Your task to perform on an android device: toggle location history Image 0: 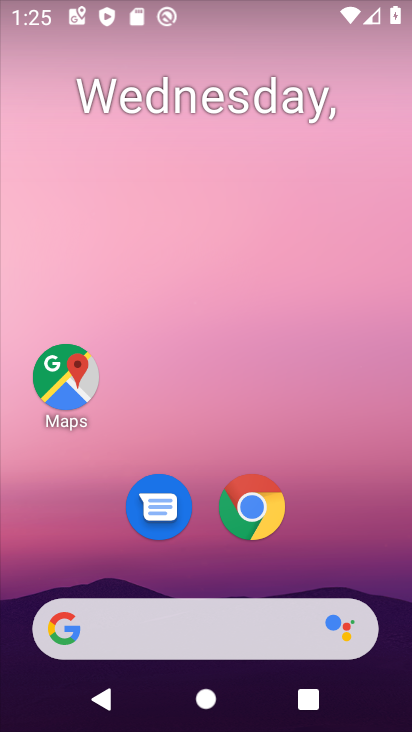
Step 0: drag from (391, 567) to (333, 187)
Your task to perform on an android device: toggle location history Image 1: 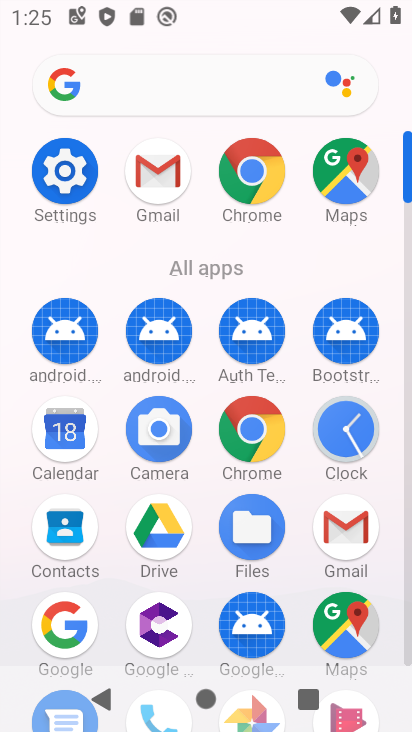
Step 1: click (74, 173)
Your task to perform on an android device: toggle location history Image 2: 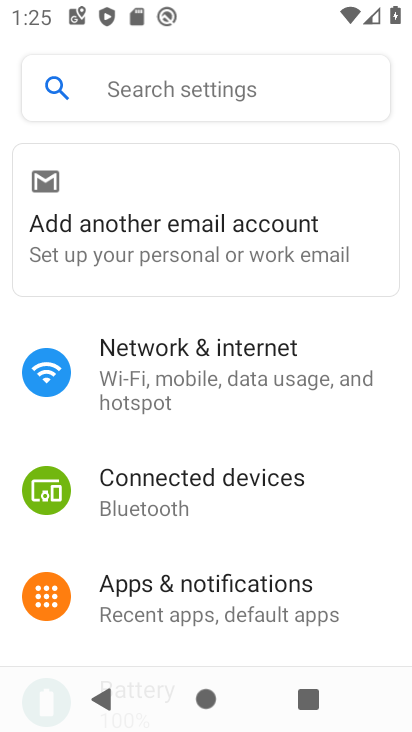
Step 2: drag from (211, 627) to (214, 314)
Your task to perform on an android device: toggle location history Image 3: 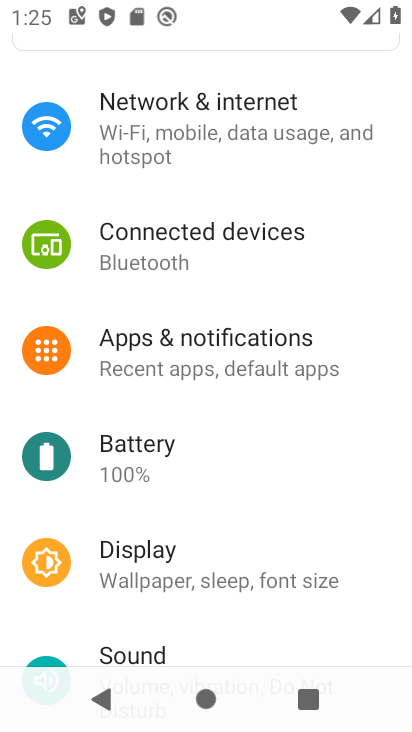
Step 3: drag from (217, 544) to (227, 267)
Your task to perform on an android device: toggle location history Image 4: 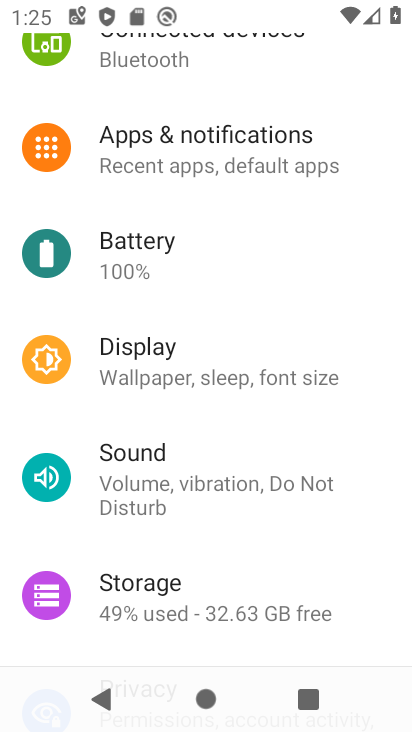
Step 4: drag from (222, 529) to (222, 210)
Your task to perform on an android device: toggle location history Image 5: 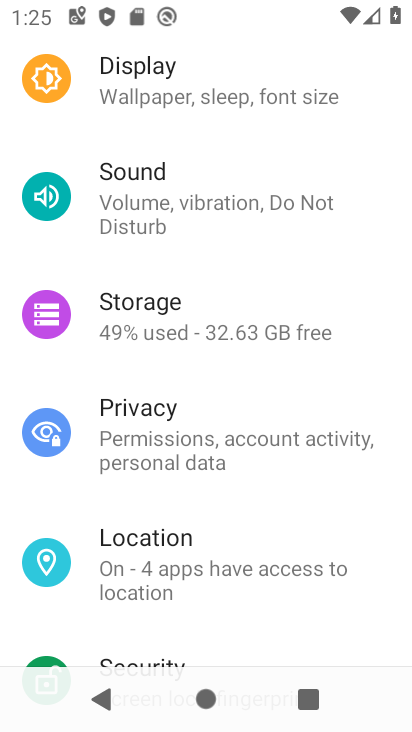
Step 5: click (227, 564)
Your task to perform on an android device: toggle location history Image 6: 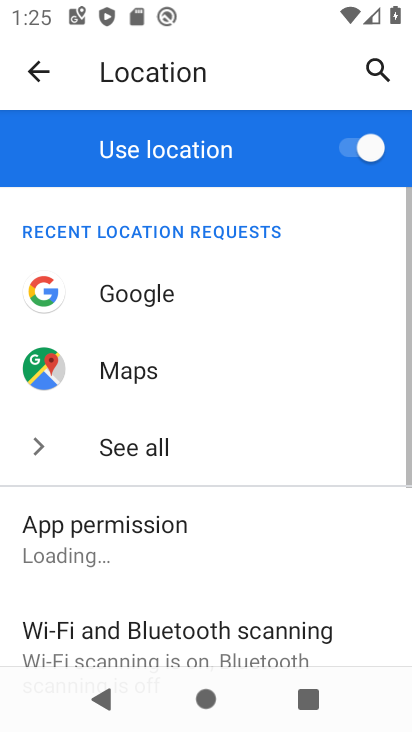
Step 6: drag from (226, 559) to (262, 232)
Your task to perform on an android device: toggle location history Image 7: 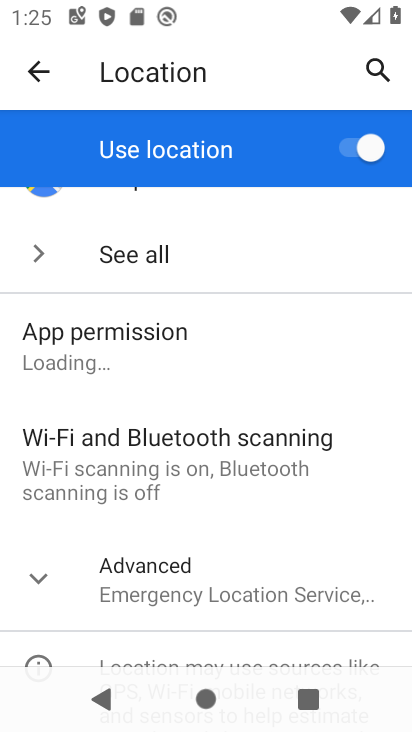
Step 7: drag from (269, 537) to (272, 293)
Your task to perform on an android device: toggle location history Image 8: 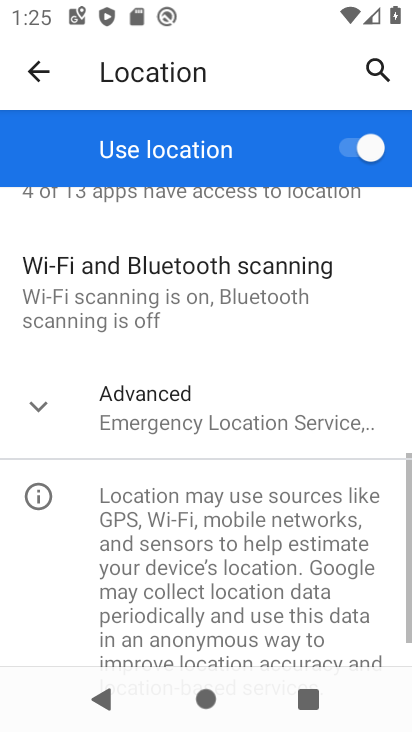
Step 8: click (257, 433)
Your task to perform on an android device: toggle location history Image 9: 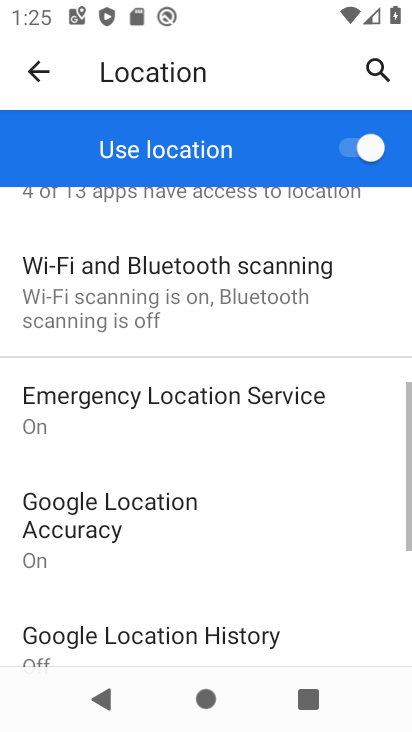
Step 9: drag from (245, 577) to (246, 258)
Your task to perform on an android device: toggle location history Image 10: 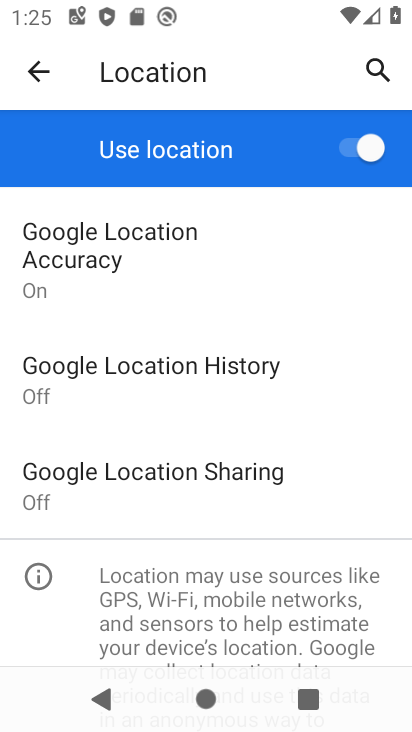
Step 10: click (213, 385)
Your task to perform on an android device: toggle location history Image 11: 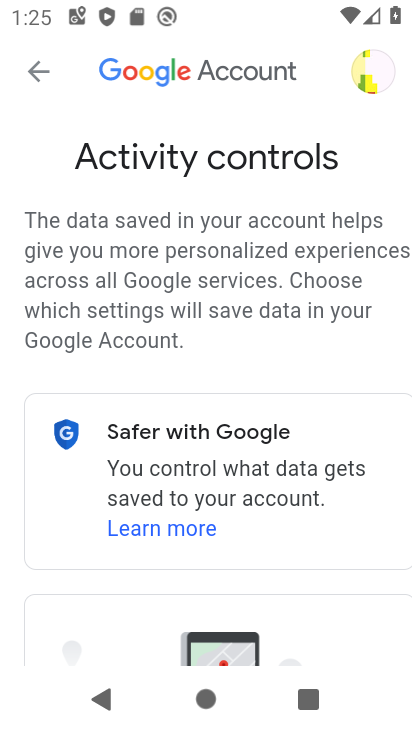
Step 11: drag from (311, 602) to (311, 271)
Your task to perform on an android device: toggle location history Image 12: 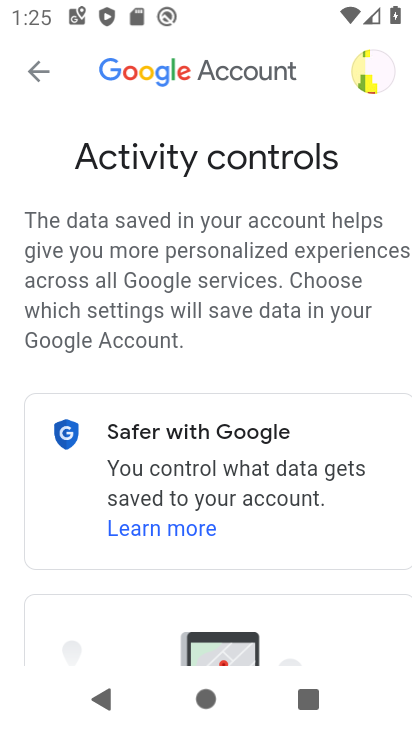
Step 12: drag from (333, 626) to (306, 285)
Your task to perform on an android device: toggle location history Image 13: 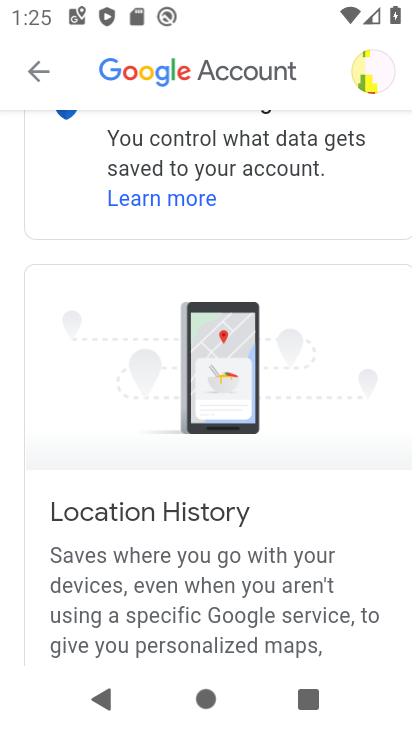
Step 13: drag from (262, 537) to (259, 218)
Your task to perform on an android device: toggle location history Image 14: 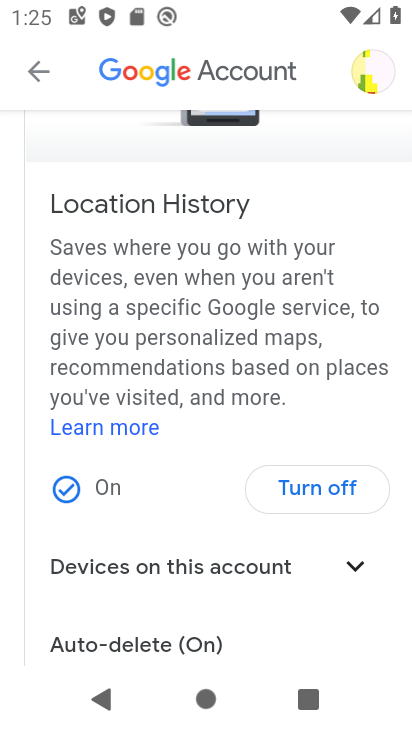
Step 14: click (282, 492)
Your task to perform on an android device: toggle location history Image 15: 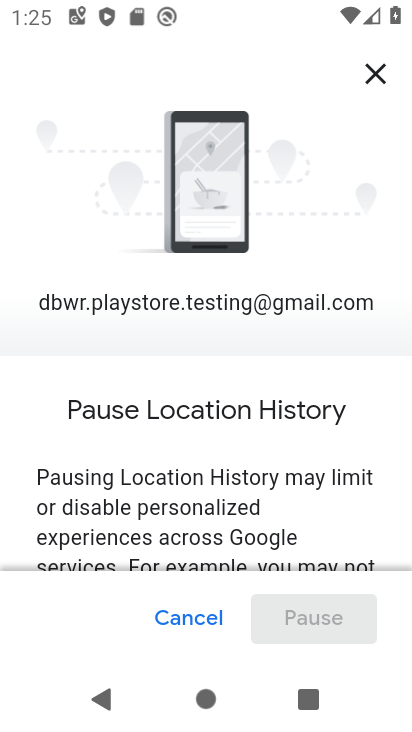
Step 15: drag from (264, 533) to (273, 181)
Your task to perform on an android device: toggle location history Image 16: 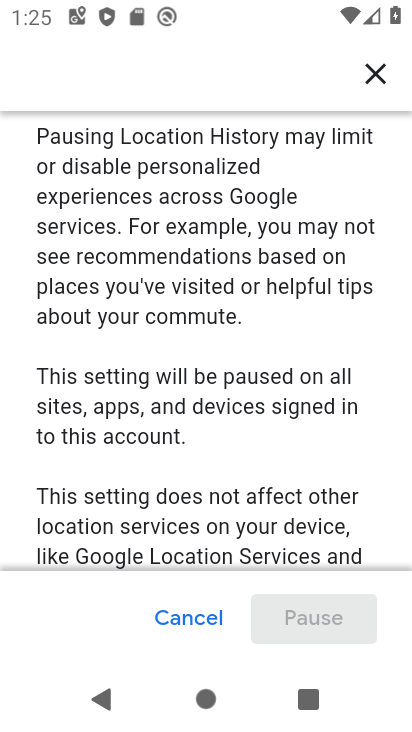
Step 16: drag from (237, 476) to (262, 153)
Your task to perform on an android device: toggle location history Image 17: 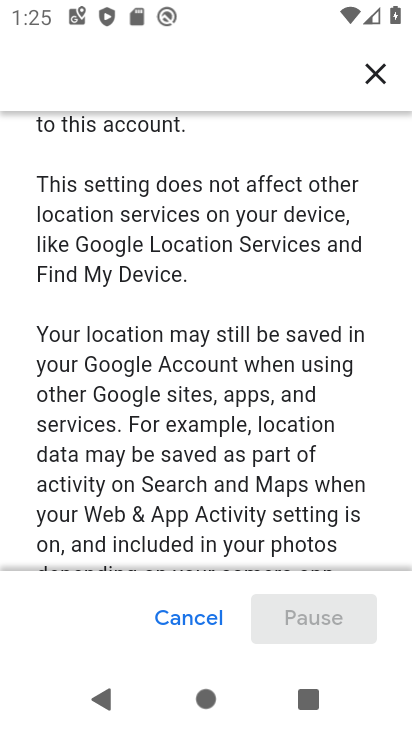
Step 17: drag from (253, 482) to (239, 114)
Your task to perform on an android device: toggle location history Image 18: 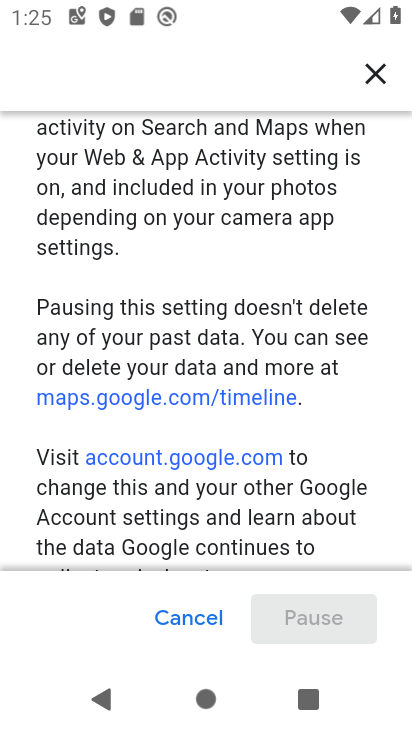
Step 18: drag from (246, 489) to (241, 131)
Your task to perform on an android device: toggle location history Image 19: 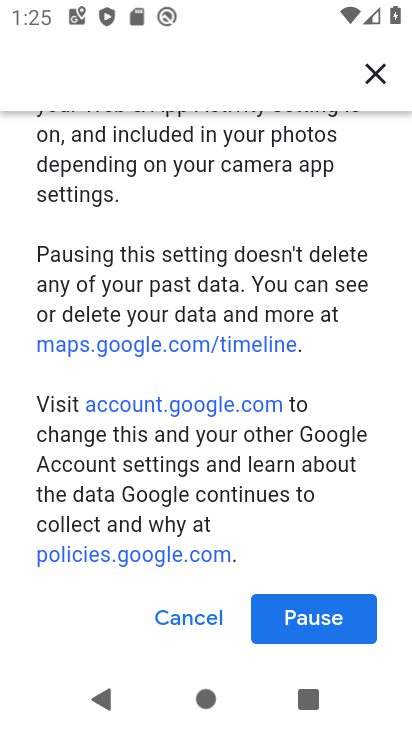
Step 19: drag from (232, 459) to (233, 188)
Your task to perform on an android device: toggle location history Image 20: 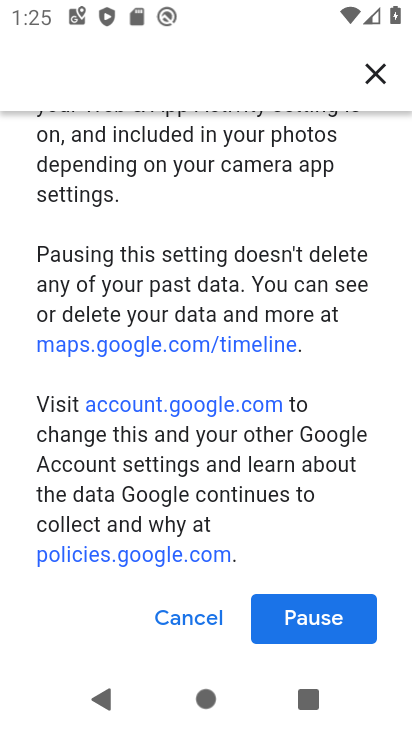
Step 20: click (296, 617)
Your task to perform on an android device: toggle location history Image 21: 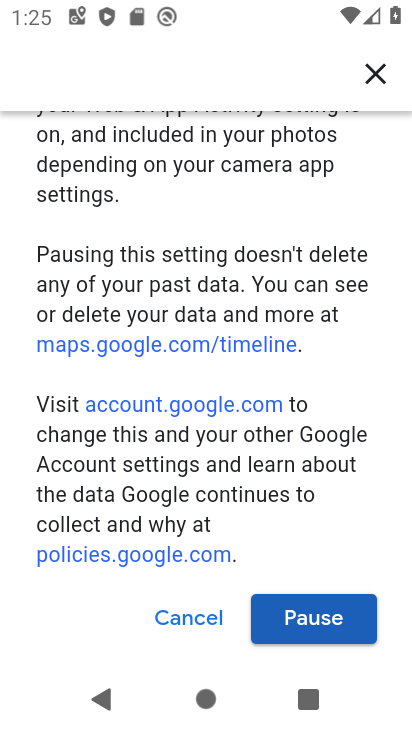
Step 21: click (278, 636)
Your task to perform on an android device: toggle location history Image 22: 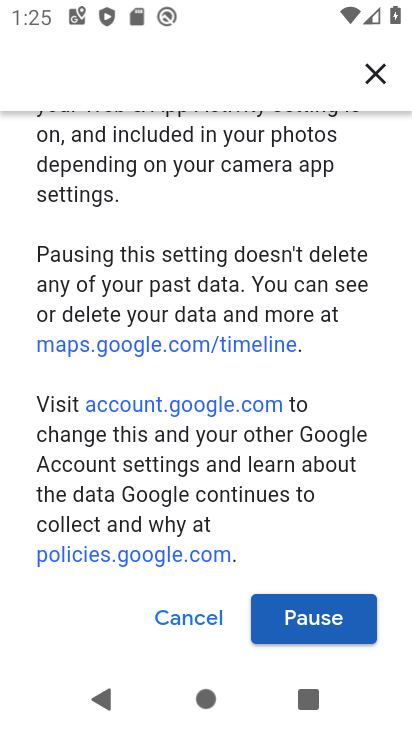
Step 22: click (330, 614)
Your task to perform on an android device: toggle location history Image 23: 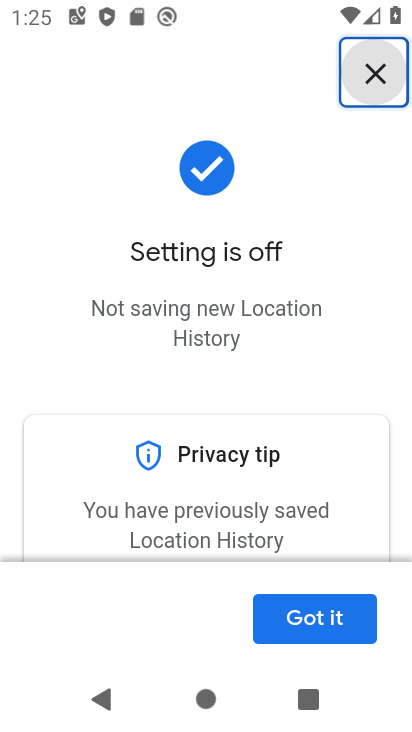
Step 23: task complete